Your task to perform on an android device: Show me popular videos on Youtube Image 0: 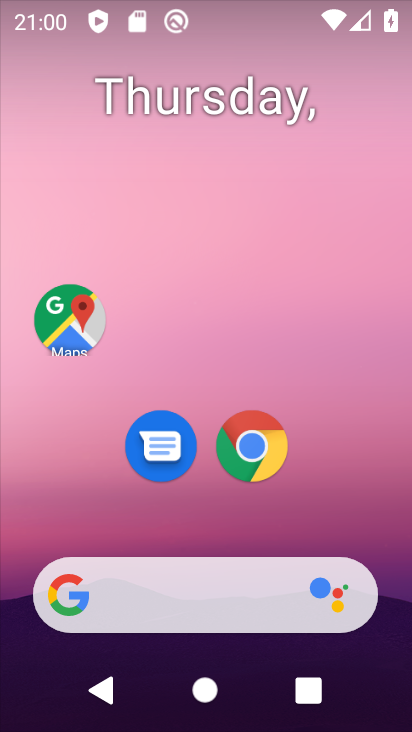
Step 0: drag from (294, 521) to (129, 47)
Your task to perform on an android device: Show me popular videos on Youtube Image 1: 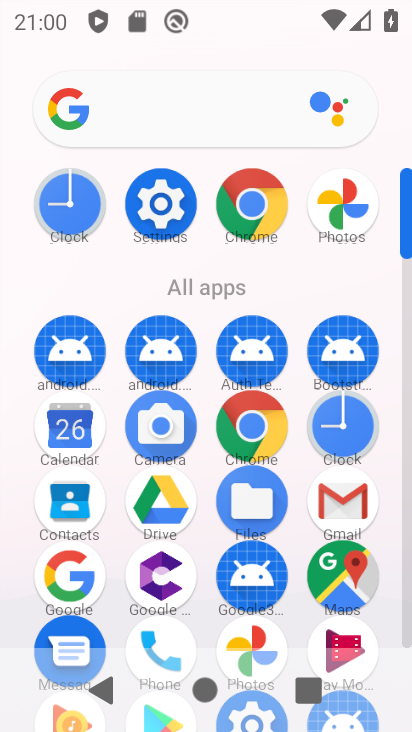
Step 1: drag from (405, 549) to (329, 731)
Your task to perform on an android device: Show me popular videos on Youtube Image 2: 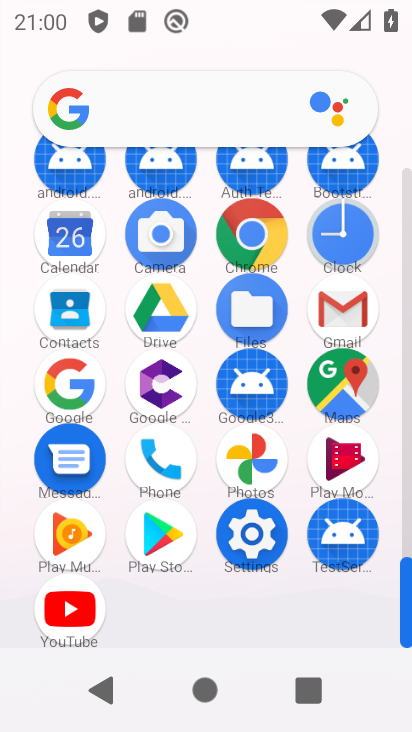
Step 2: click (77, 590)
Your task to perform on an android device: Show me popular videos on Youtube Image 3: 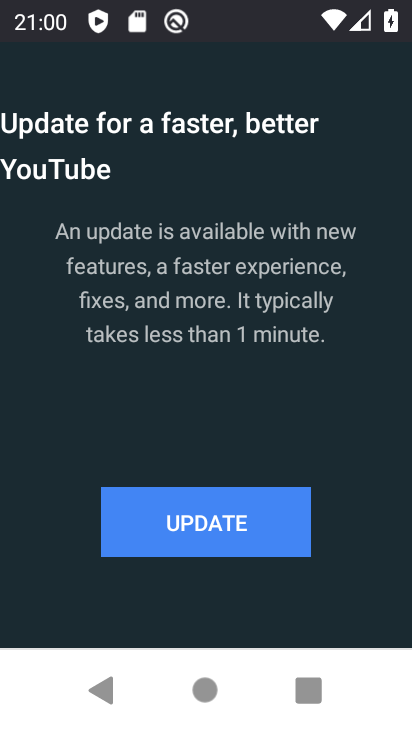
Step 3: click (270, 541)
Your task to perform on an android device: Show me popular videos on Youtube Image 4: 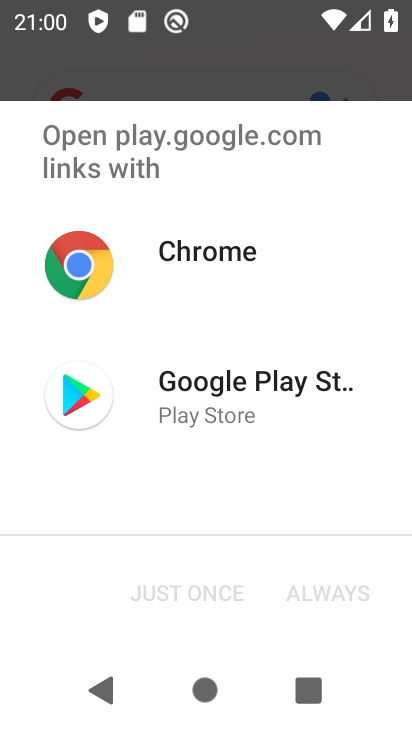
Step 4: click (136, 388)
Your task to perform on an android device: Show me popular videos on Youtube Image 5: 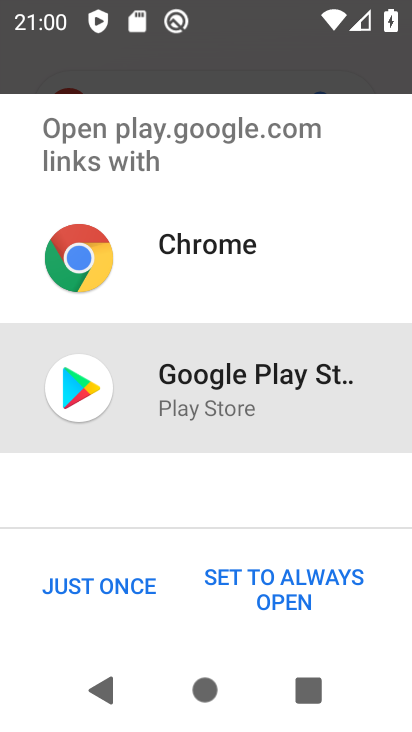
Step 5: click (83, 604)
Your task to perform on an android device: Show me popular videos on Youtube Image 6: 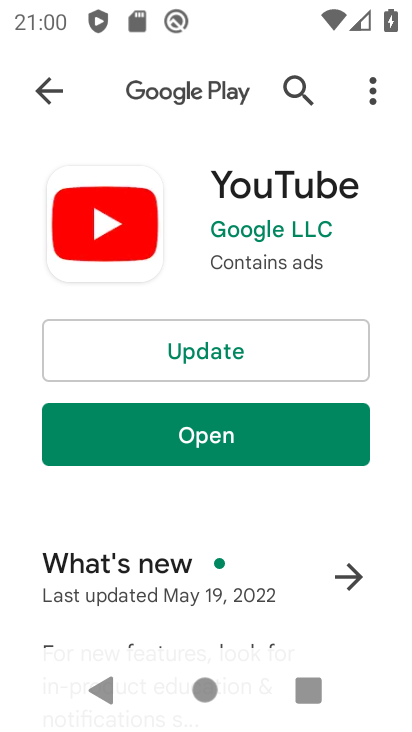
Step 6: click (162, 355)
Your task to perform on an android device: Show me popular videos on Youtube Image 7: 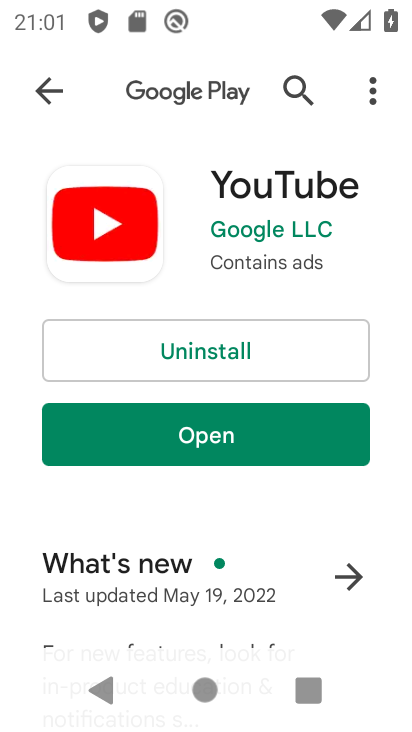
Step 7: click (238, 434)
Your task to perform on an android device: Show me popular videos on Youtube Image 8: 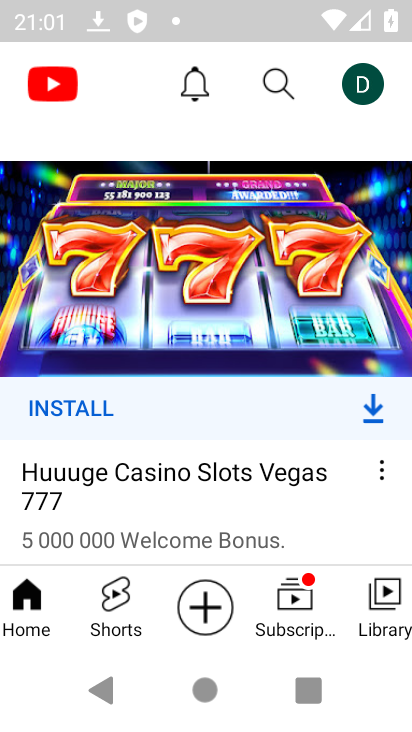
Step 8: click (279, 78)
Your task to perform on an android device: Show me popular videos on Youtube Image 9: 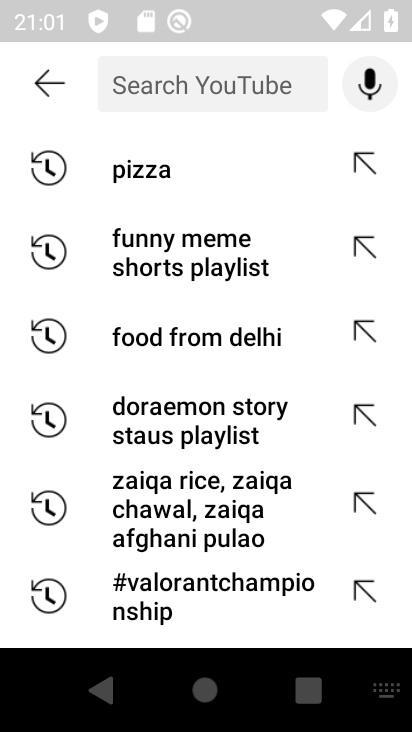
Step 9: type " popular videos"
Your task to perform on an android device: Show me popular videos on Youtube Image 10: 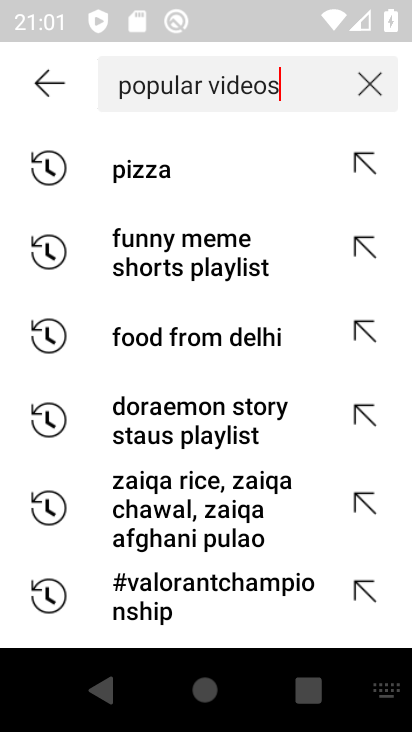
Step 10: type ""
Your task to perform on an android device: Show me popular videos on Youtube Image 11: 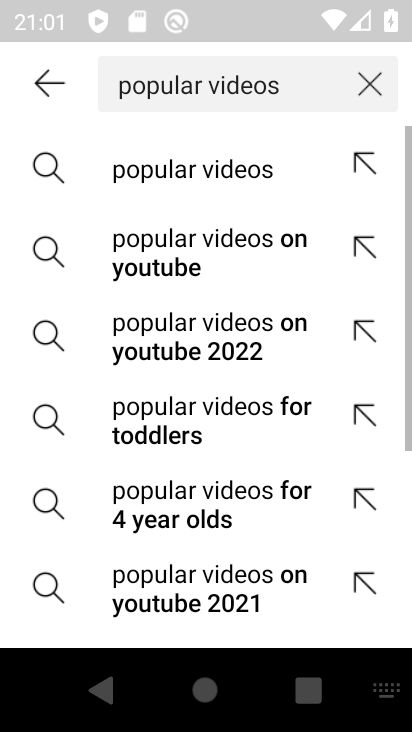
Step 11: click (219, 145)
Your task to perform on an android device: Show me popular videos on Youtube Image 12: 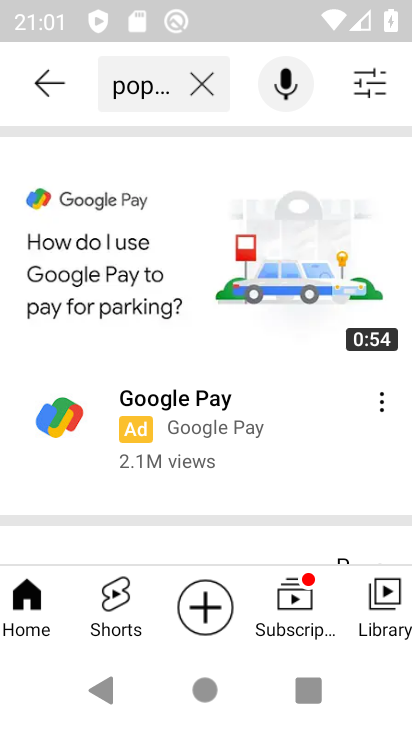
Step 12: task complete